Your task to perform on an android device: turn off location history Image 0: 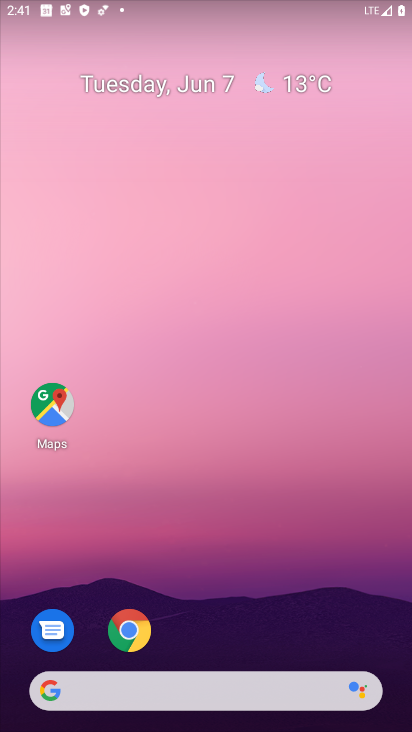
Step 0: drag from (246, 510) to (297, 285)
Your task to perform on an android device: turn off location history Image 1: 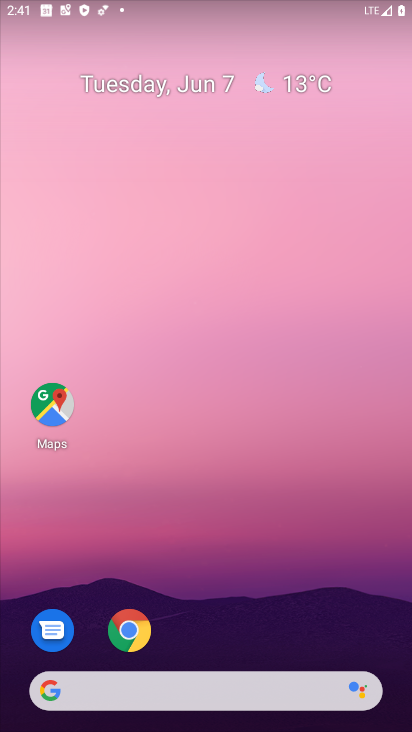
Step 1: drag from (252, 603) to (257, 113)
Your task to perform on an android device: turn off location history Image 2: 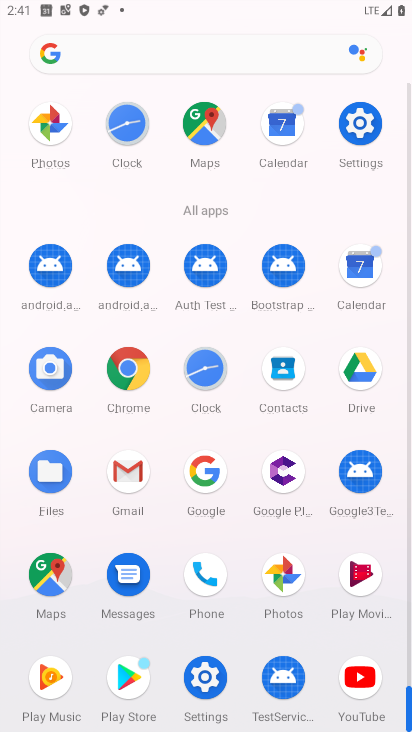
Step 2: click (347, 119)
Your task to perform on an android device: turn off location history Image 3: 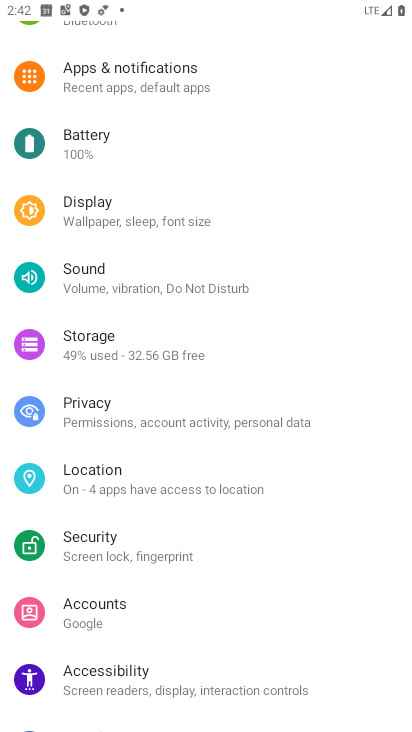
Step 3: click (99, 480)
Your task to perform on an android device: turn off location history Image 4: 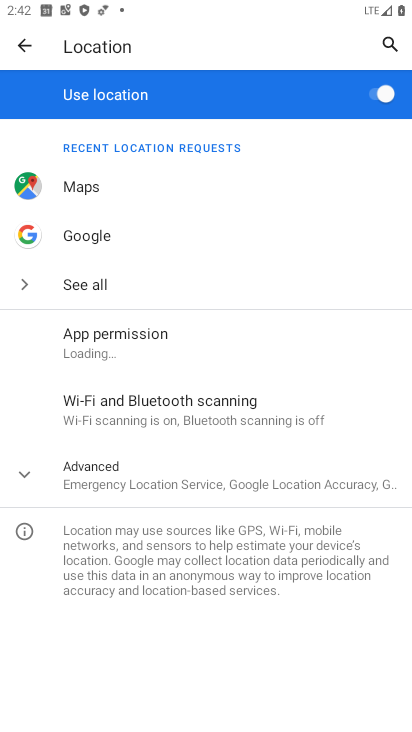
Step 4: click (168, 484)
Your task to perform on an android device: turn off location history Image 5: 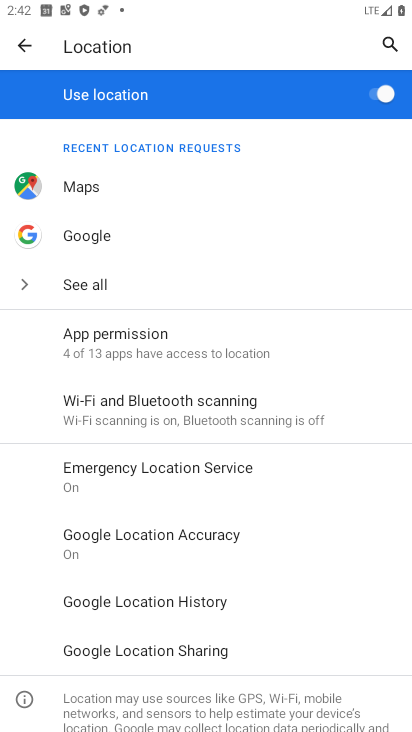
Step 5: click (127, 611)
Your task to perform on an android device: turn off location history Image 6: 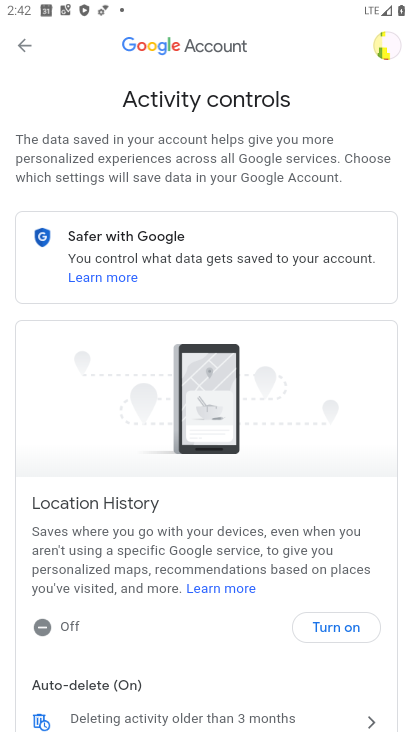
Step 6: click (41, 623)
Your task to perform on an android device: turn off location history Image 7: 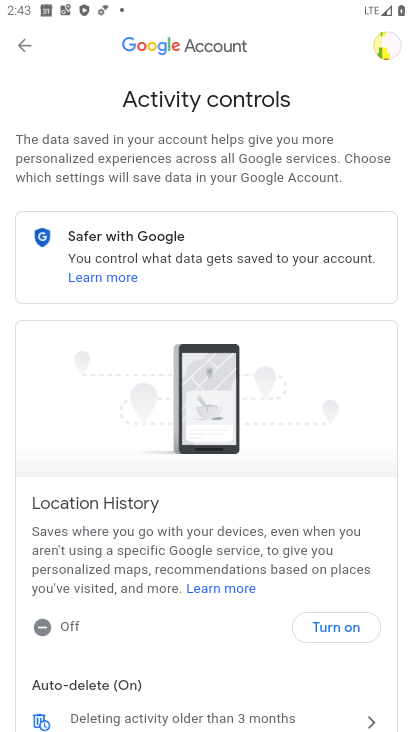
Step 7: click (158, 706)
Your task to perform on an android device: turn off location history Image 8: 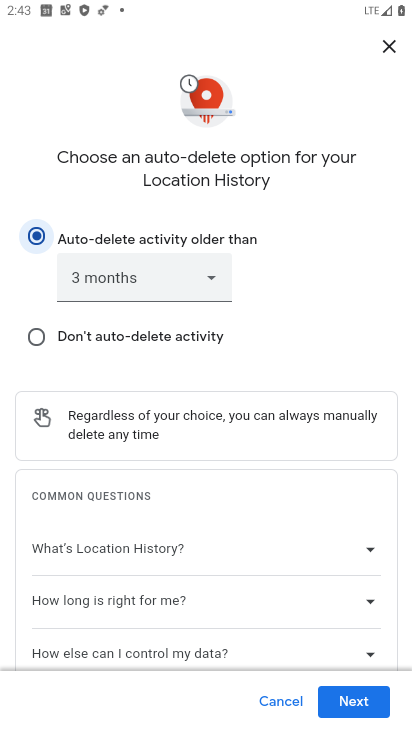
Step 8: click (271, 707)
Your task to perform on an android device: turn off location history Image 9: 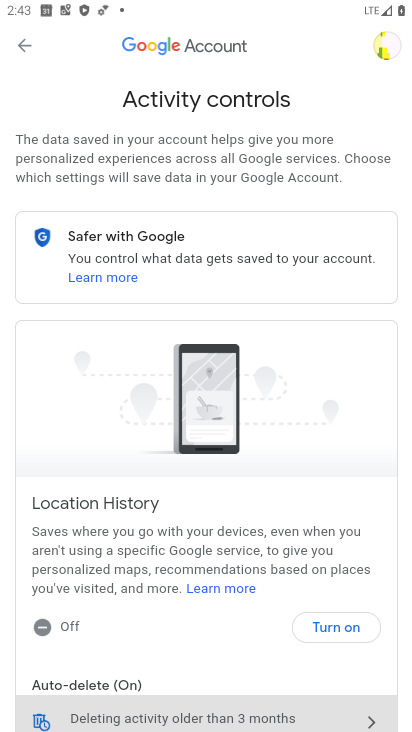
Step 9: click (53, 632)
Your task to perform on an android device: turn off location history Image 10: 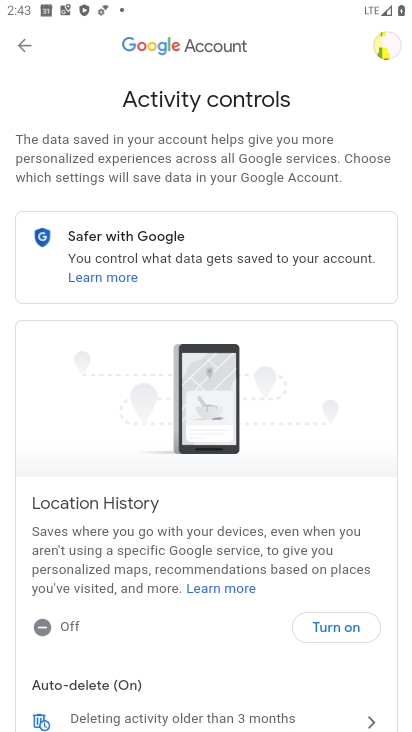
Step 10: click (42, 622)
Your task to perform on an android device: turn off location history Image 11: 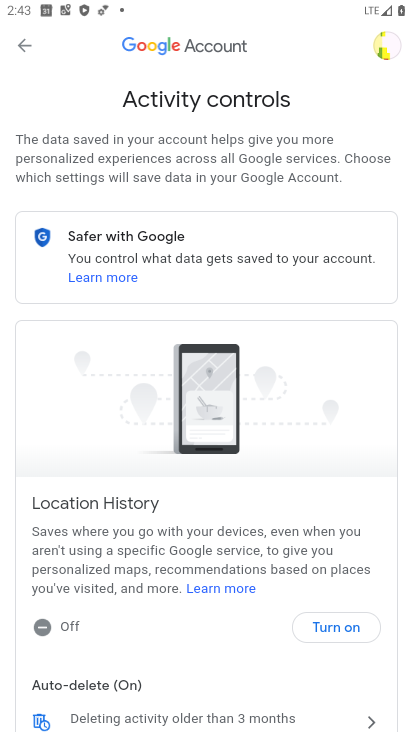
Step 11: task complete